Your task to perform on an android device: turn off location history Image 0: 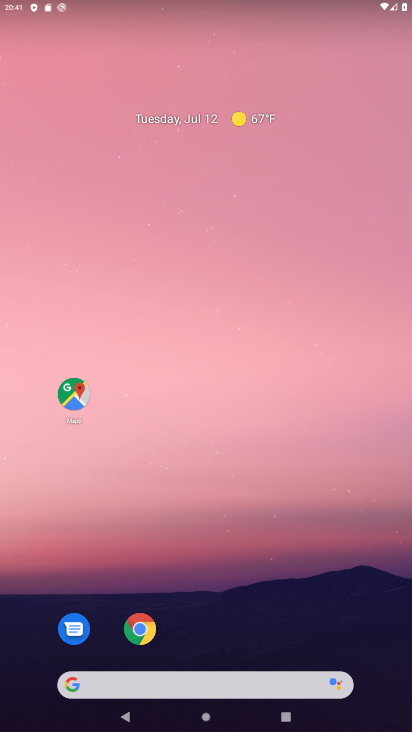
Step 0: drag from (241, 714) to (335, 13)
Your task to perform on an android device: turn off location history Image 1: 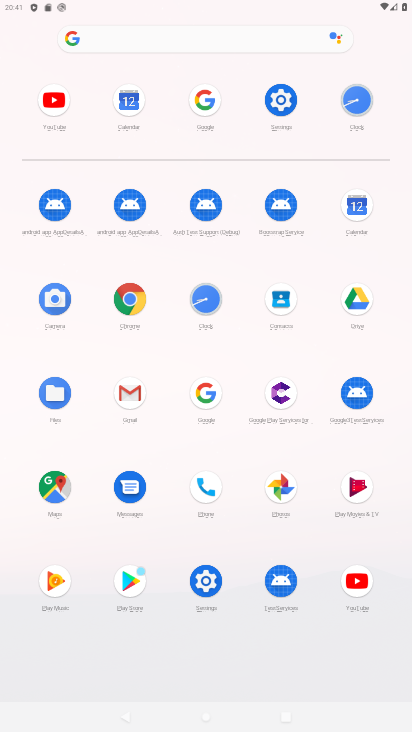
Step 1: click (51, 490)
Your task to perform on an android device: turn off location history Image 2: 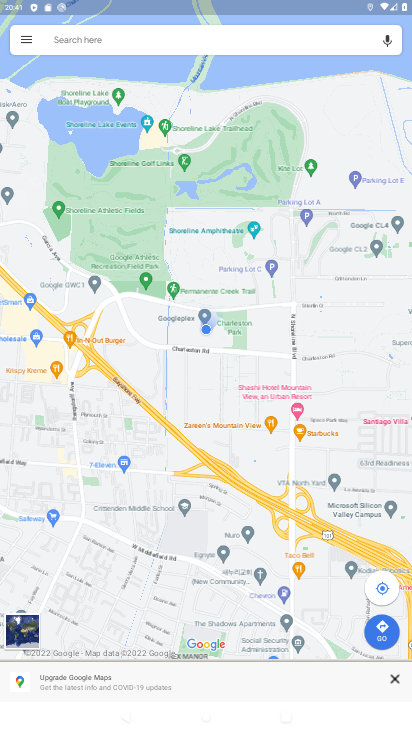
Step 2: click (23, 39)
Your task to perform on an android device: turn off location history Image 3: 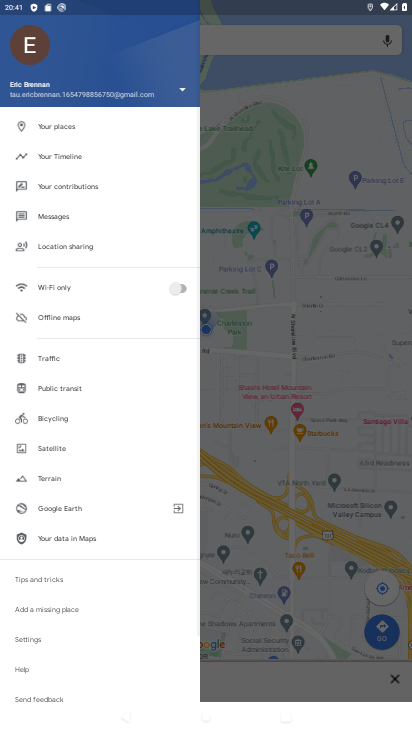
Step 3: click (76, 164)
Your task to perform on an android device: turn off location history Image 4: 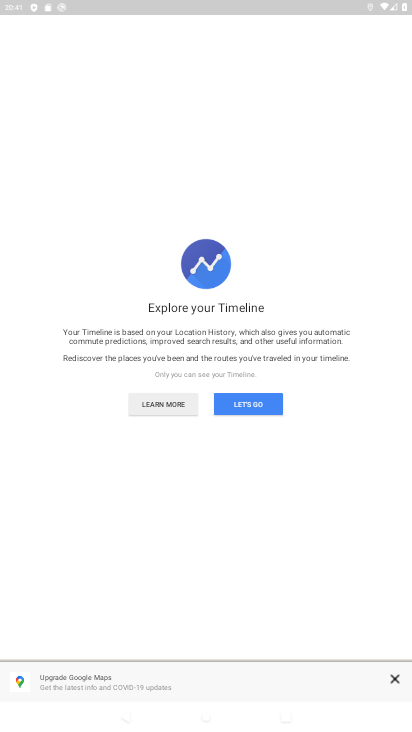
Step 4: click (253, 401)
Your task to perform on an android device: turn off location history Image 5: 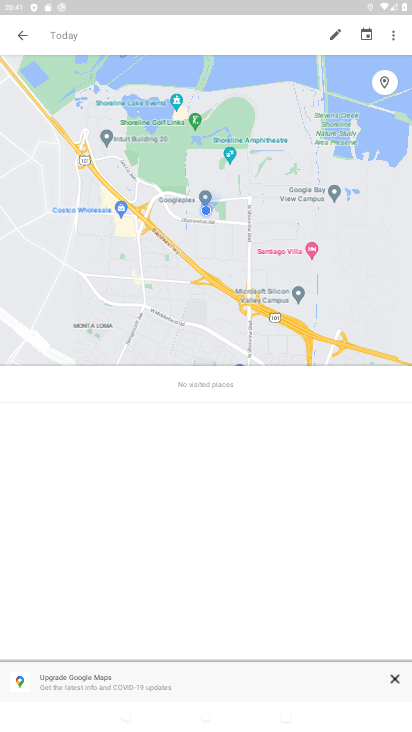
Step 5: click (395, 25)
Your task to perform on an android device: turn off location history Image 6: 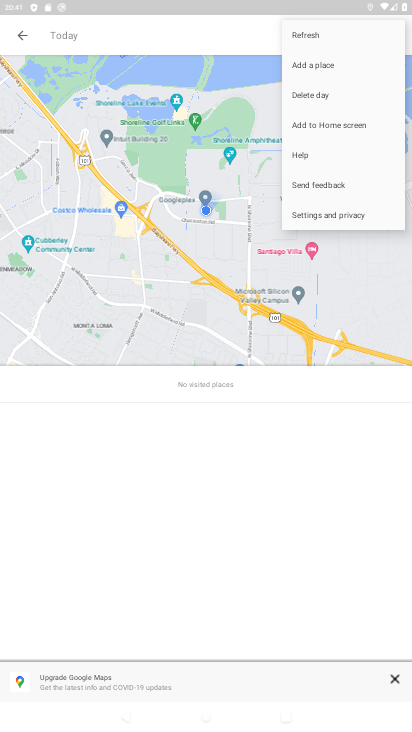
Step 6: click (350, 211)
Your task to perform on an android device: turn off location history Image 7: 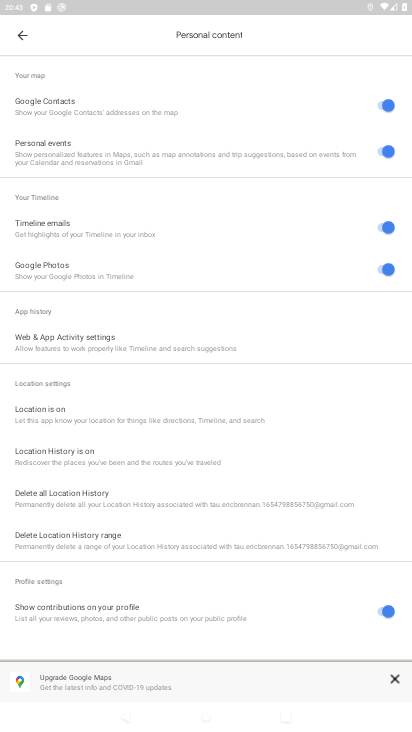
Step 7: click (68, 462)
Your task to perform on an android device: turn off location history Image 8: 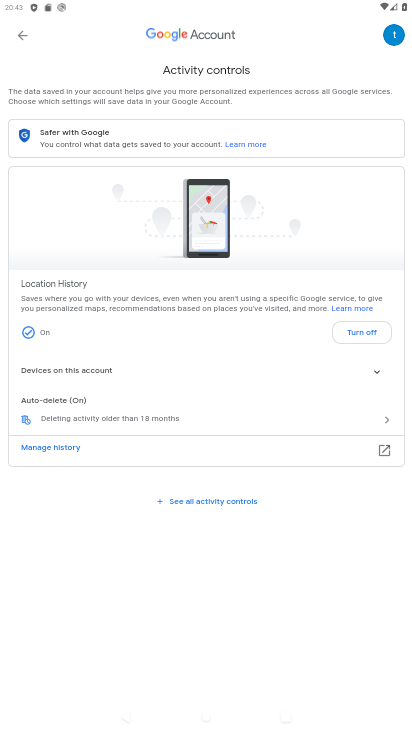
Step 8: click (367, 326)
Your task to perform on an android device: turn off location history Image 9: 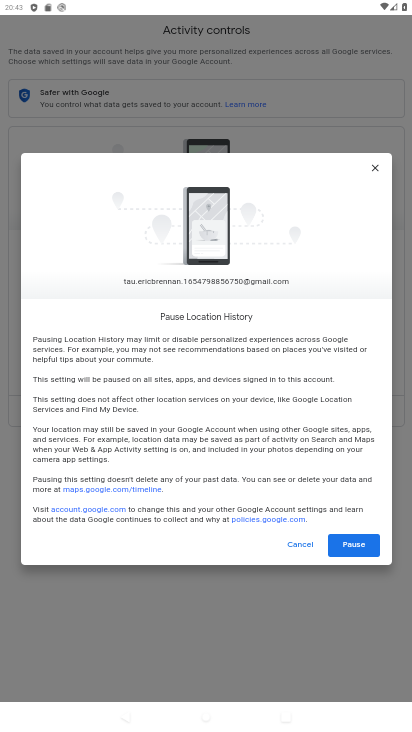
Step 9: click (368, 547)
Your task to perform on an android device: turn off location history Image 10: 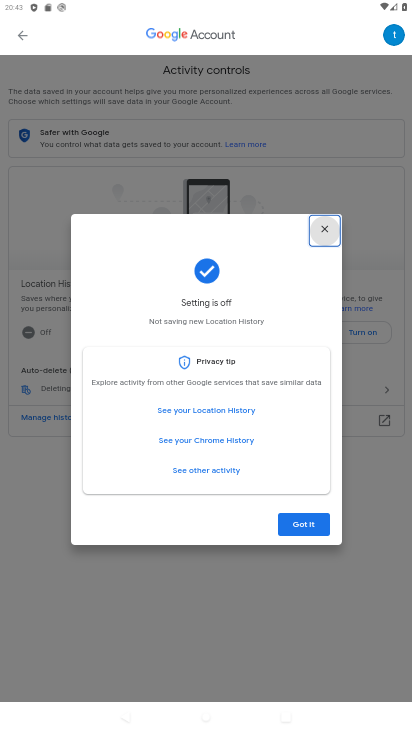
Step 10: click (314, 527)
Your task to perform on an android device: turn off location history Image 11: 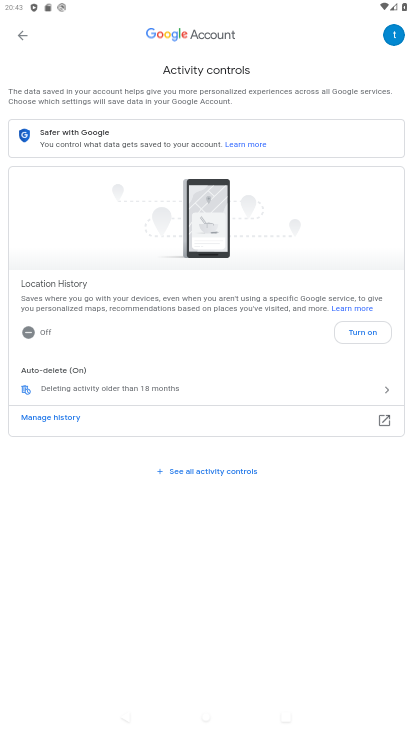
Step 11: task complete